Your task to perform on an android device: Go to Wikipedia Image 0: 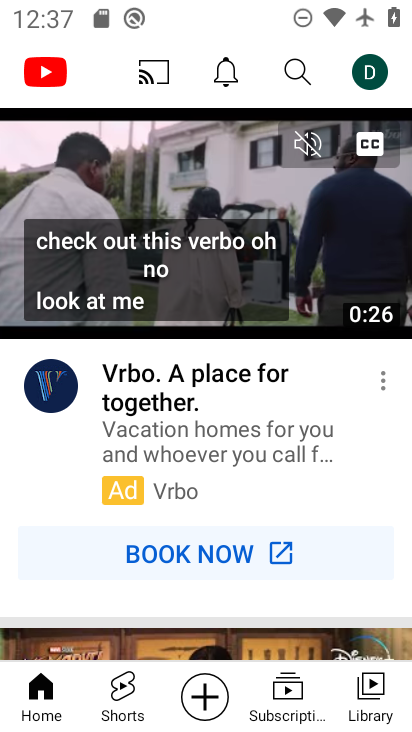
Step 0: press home button
Your task to perform on an android device: Go to Wikipedia Image 1: 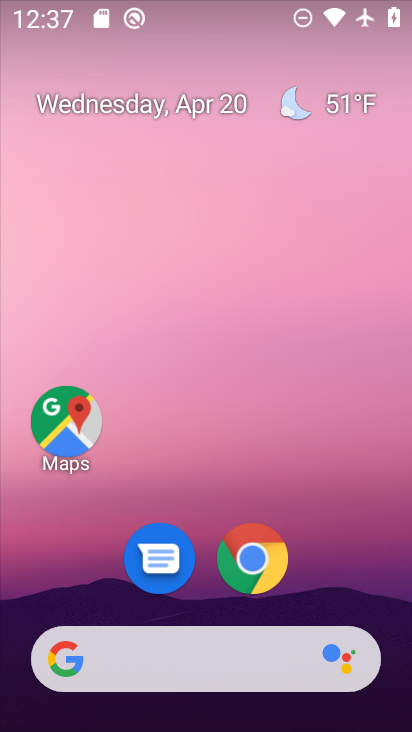
Step 1: click (242, 557)
Your task to perform on an android device: Go to Wikipedia Image 2: 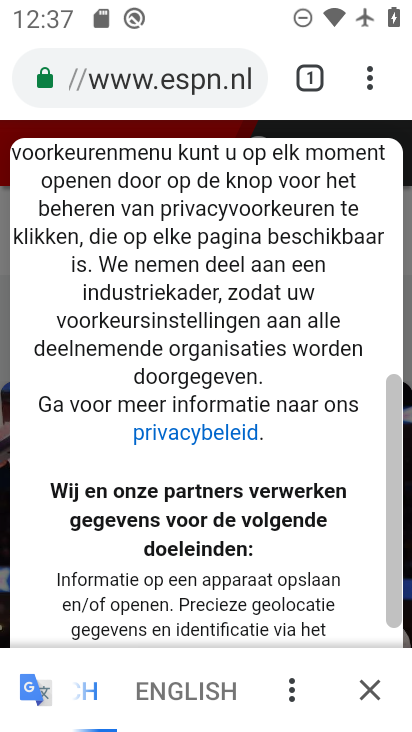
Step 2: click (368, 77)
Your task to perform on an android device: Go to Wikipedia Image 3: 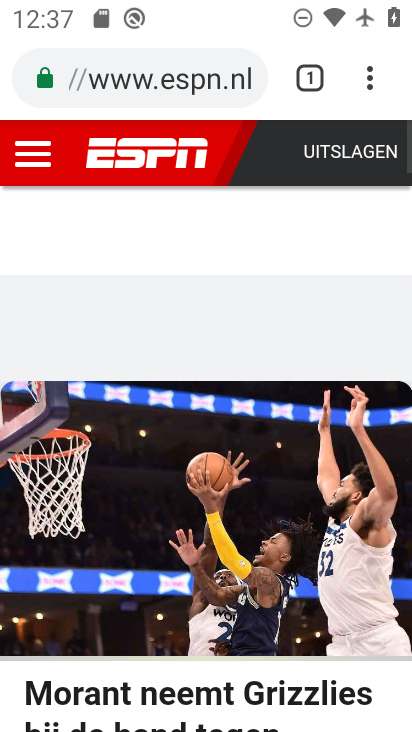
Step 3: click (368, 86)
Your task to perform on an android device: Go to Wikipedia Image 4: 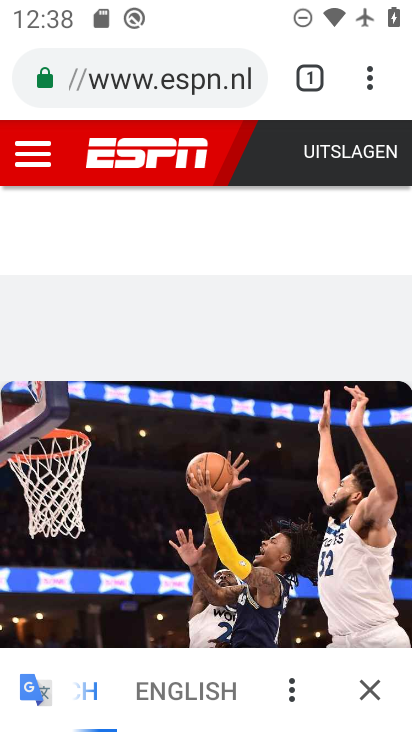
Step 4: click (368, 87)
Your task to perform on an android device: Go to Wikipedia Image 5: 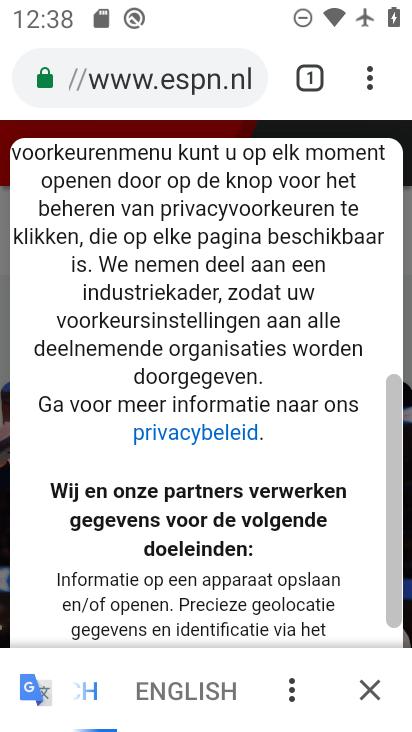
Step 5: click (369, 80)
Your task to perform on an android device: Go to Wikipedia Image 6: 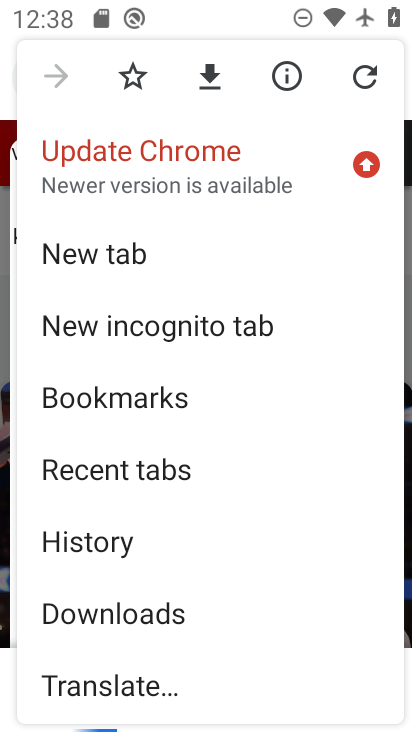
Step 6: click (83, 249)
Your task to perform on an android device: Go to Wikipedia Image 7: 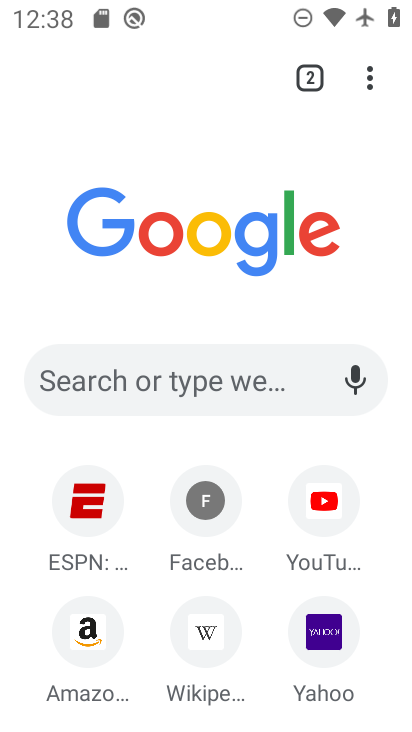
Step 7: click (207, 629)
Your task to perform on an android device: Go to Wikipedia Image 8: 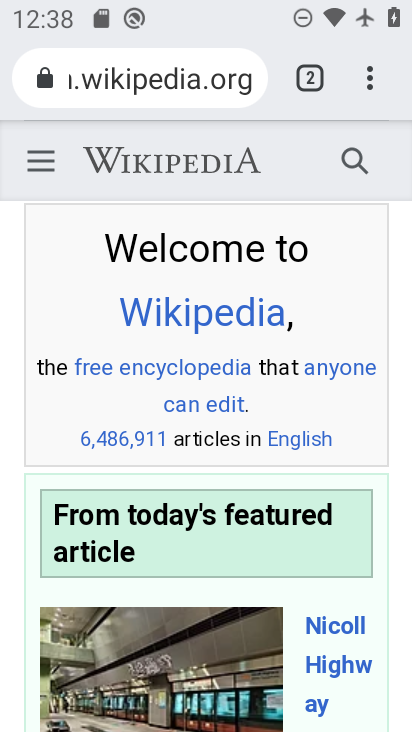
Step 8: task complete